Your task to perform on an android device: Open Maps and search for coffee Image 0: 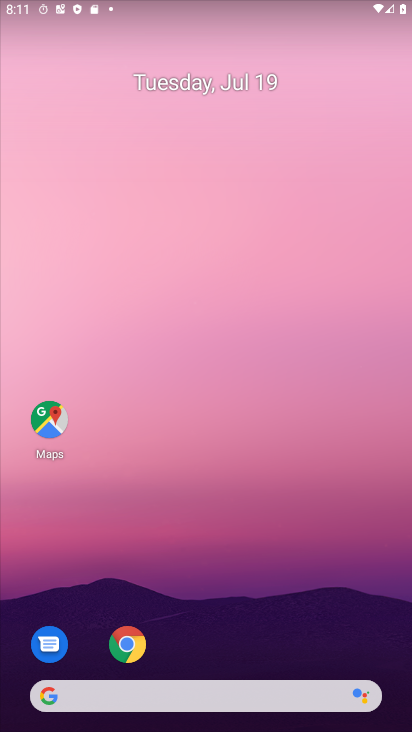
Step 0: click (69, 431)
Your task to perform on an android device: Open Maps and search for coffee Image 1: 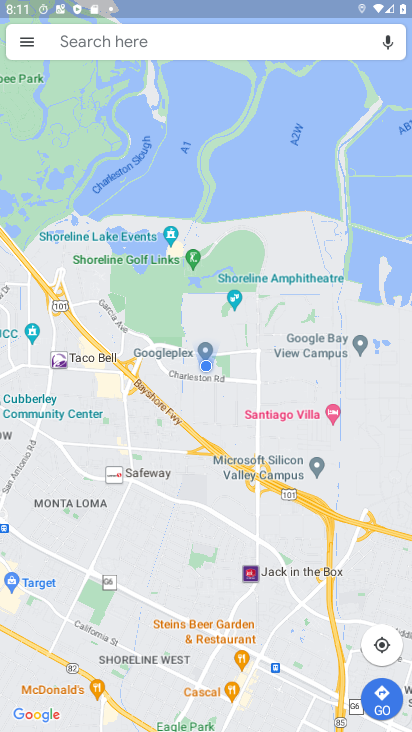
Step 1: click (90, 39)
Your task to perform on an android device: Open Maps and search for coffee Image 2: 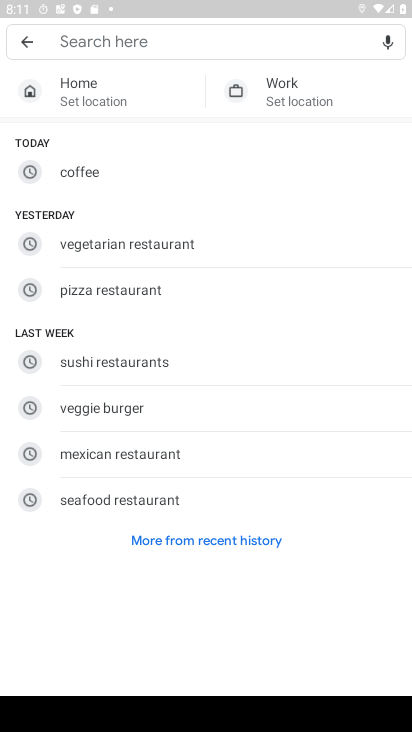
Step 2: click (89, 167)
Your task to perform on an android device: Open Maps and search for coffee Image 3: 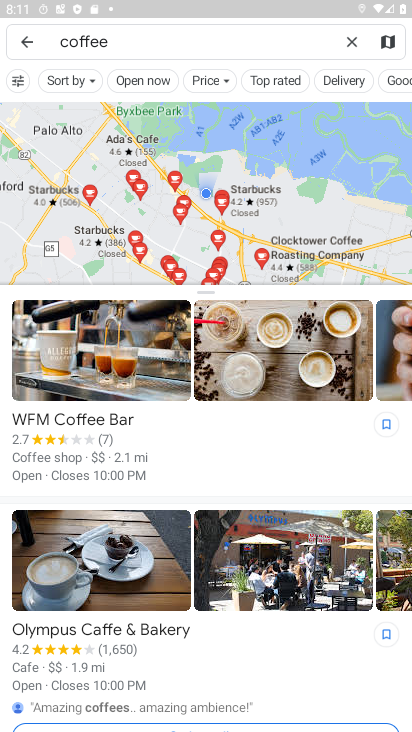
Step 3: task complete